Your task to perform on an android device: Open CNN.com Image 0: 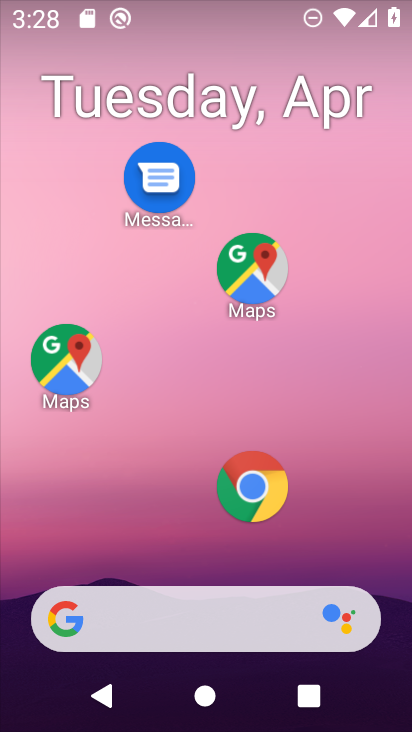
Step 0: click (266, 499)
Your task to perform on an android device: Open CNN.com Image 1: 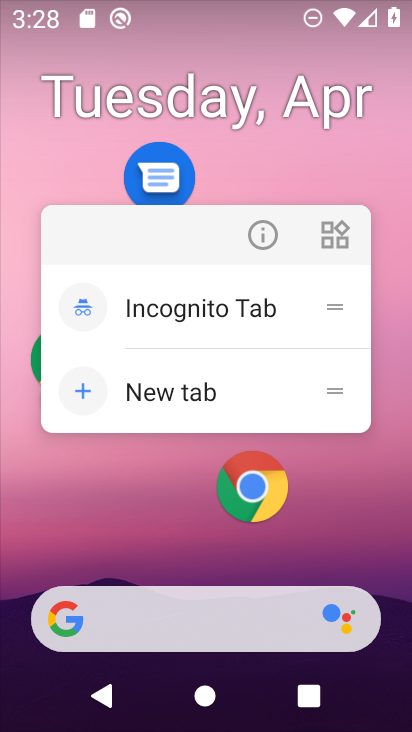
Step 1: click (264, 251)
Your task to perform on an android device: Open CNN.com Image 2: 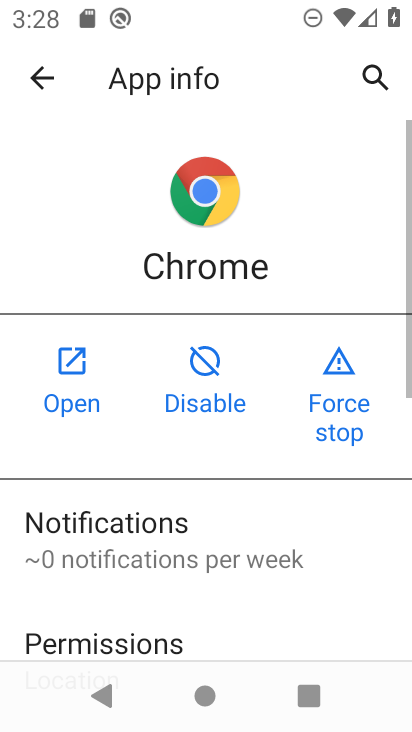
Step 2: click (99, 398)
Your task to perform on an android device: Open CNN.com Image 3: 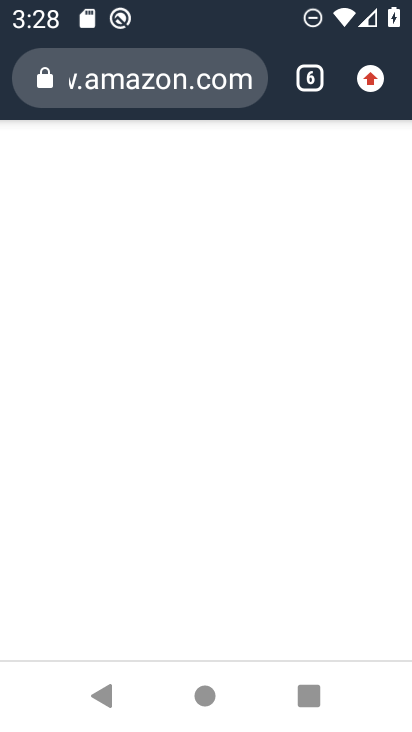
Step 3: click (314, 88)
Your task to perform on an android device: Open CNN.com Image 4: 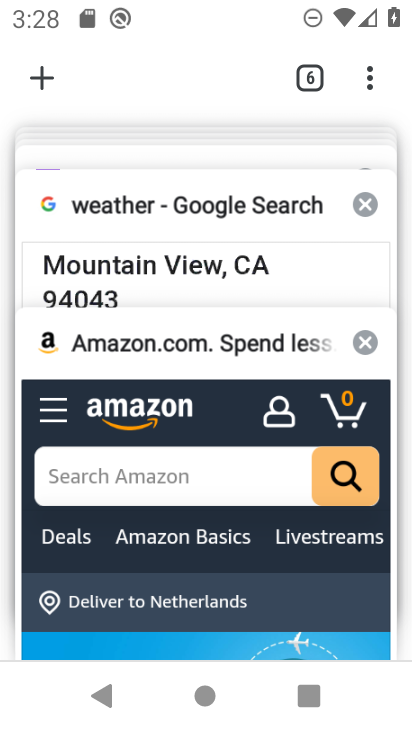
Step 4: click (38, 83)
Your task to perform on an android device: Open CNN.com Image 5: 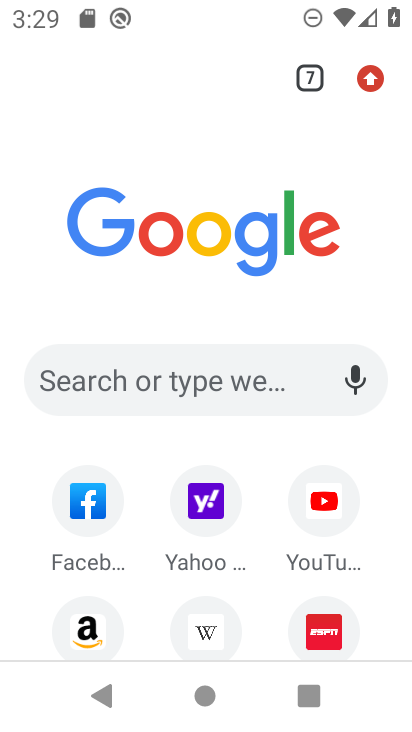
Step 5: click (166, 374)
Your task to perform on an android device: Open CNN.com Image 6: 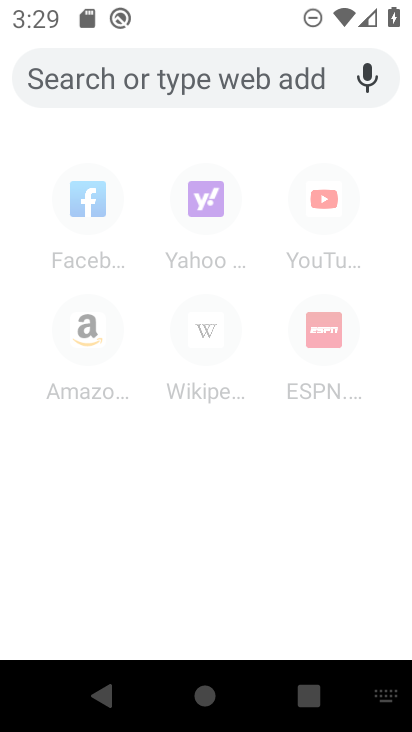
Step 6: task complete